Your task to perform on an android device: Go to Maps Image 0: 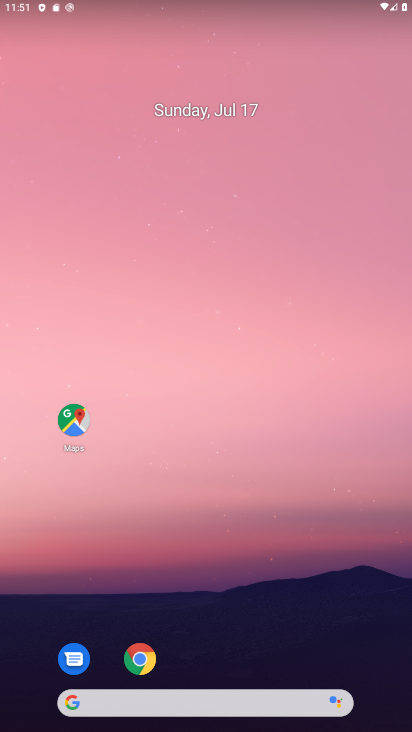
Step 0: drag from (262, 416) to (247, 136)
Your task to perform on an android device: Go to Maps Image 1: 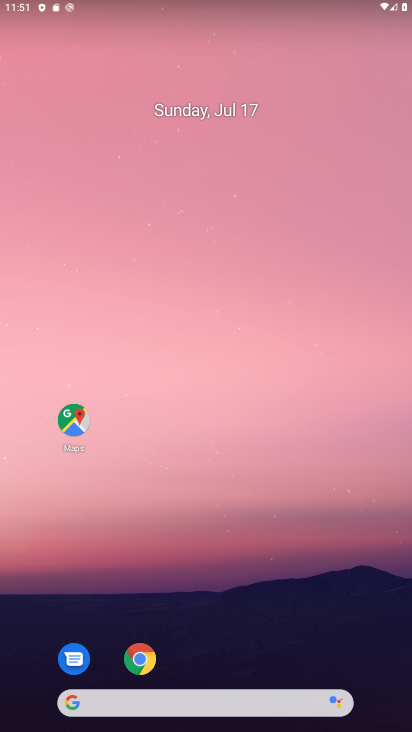
Step 1: click (207, 244)
Your task to perform on an android device: Go to Maps Image 2: 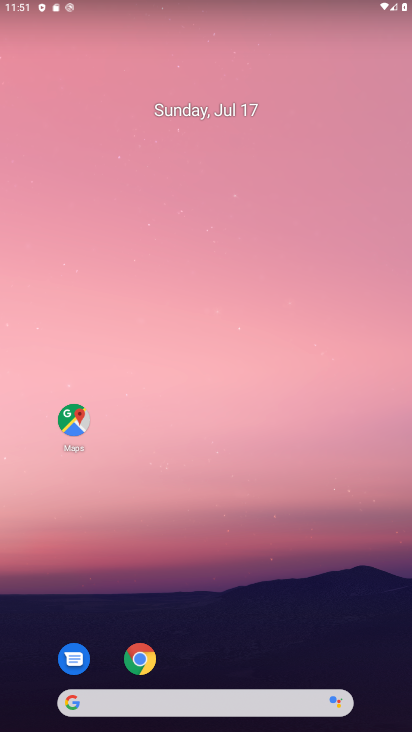
Step 2: drag from (266, 585) to (171, 58)
Your task to perform on an android device: Go to Maps Image 3: 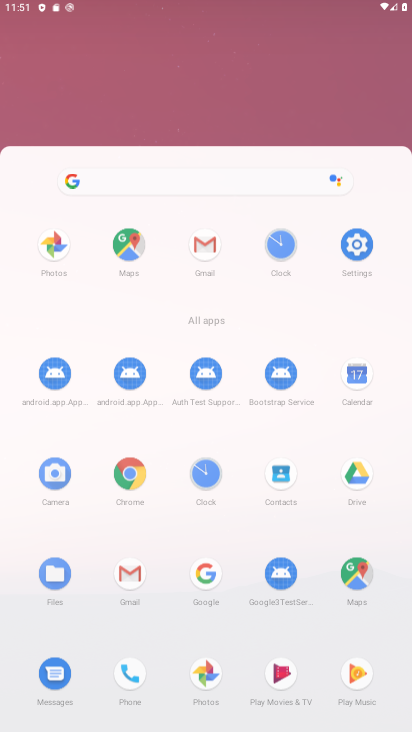
Step 3: drag from (204, 67) to (140, 41)
Your task to perform on an android device: Go to Maps Image 4: 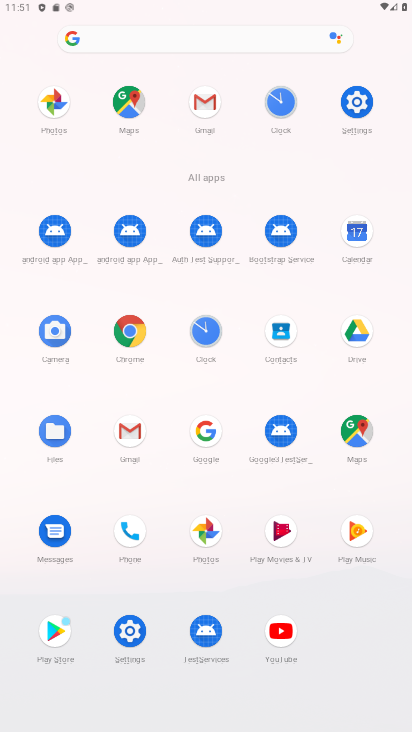
Step 4: drag from (254, 407) to (176, 128)
Your task to perform on an android device: Go to Maps Image 5: 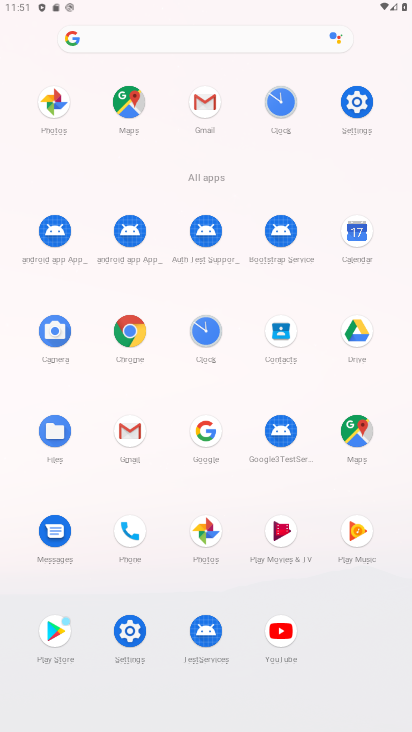
Step 5: drag from (241, 539) to (169, 74)
Your task to perform on an android device: Go to Maps Image 6: 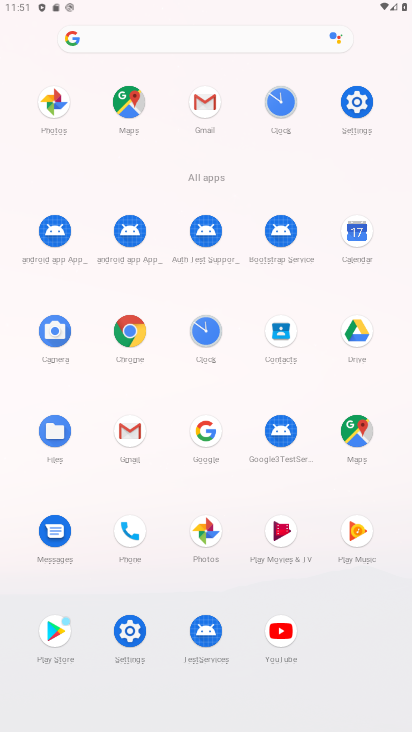
Step 6: drag from (227, 404) to (132, 41)
Your task to perform on an android device: Go to Maps Image 7: 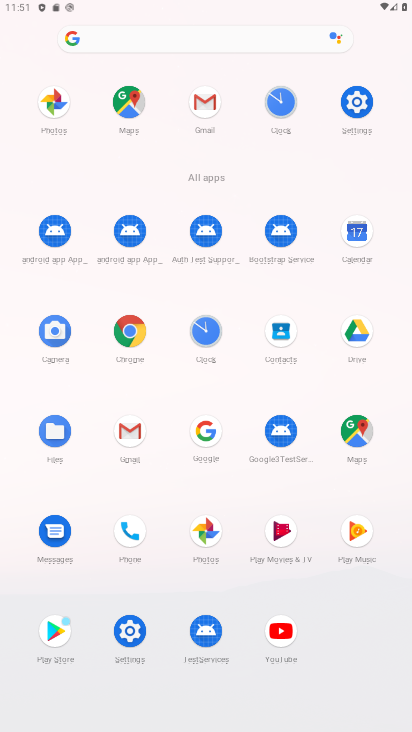
Step 7: click (361, 441)
Your task to perform on an android device: Go to Maps Image 8: 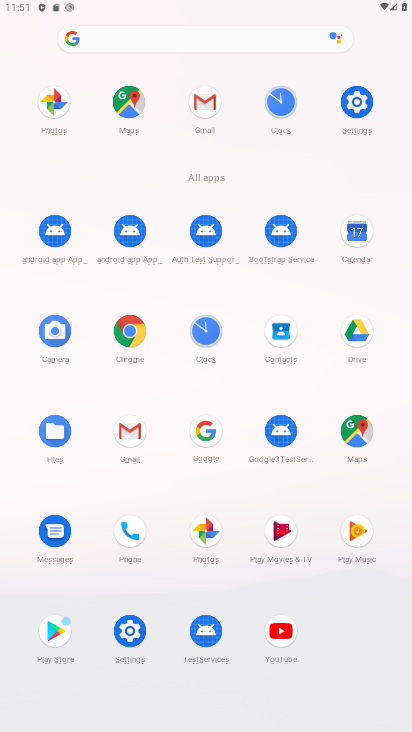
Step 8: click (354, 438)
Your task to perform on an android device: Go to Maps Image 9: 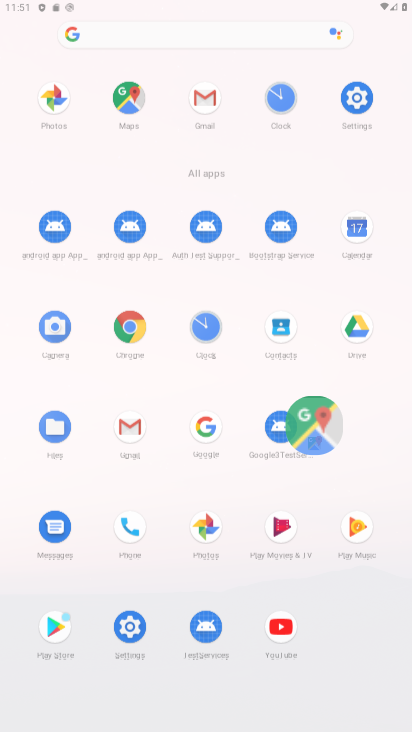
Step 9: click (356, 433)
Your task to perform on an android device: Go to Maps Image 10: 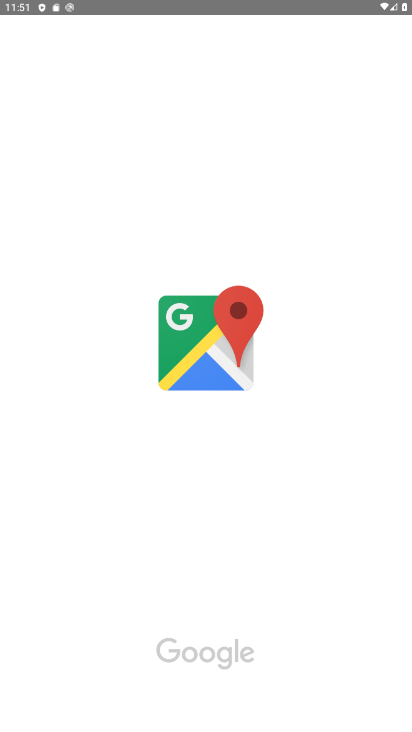
Step 10: click (353, 431)
Your task to perform on an android device: Go to Maps Image 11: 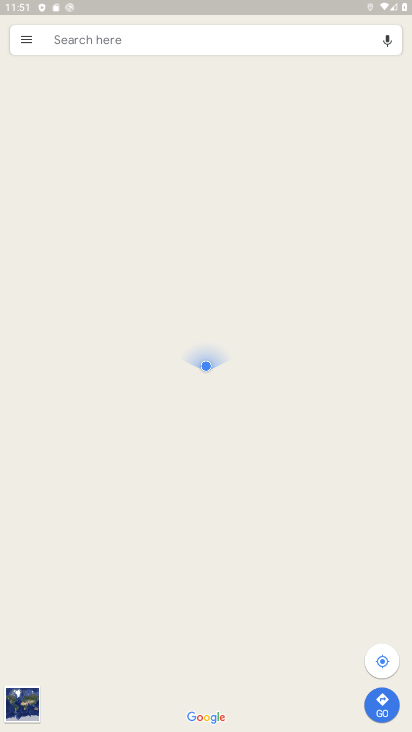
Step 11: task complete